Your task to perform on an android device: What's the weather going to be tomorrow? Image 0: 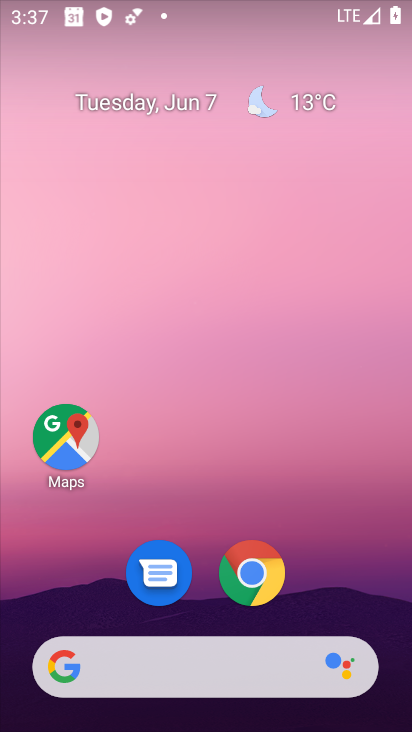
Step 0: click (254, 602)
Your task to perform on an android device: What's the weather going to be tomorrow? Image 1: 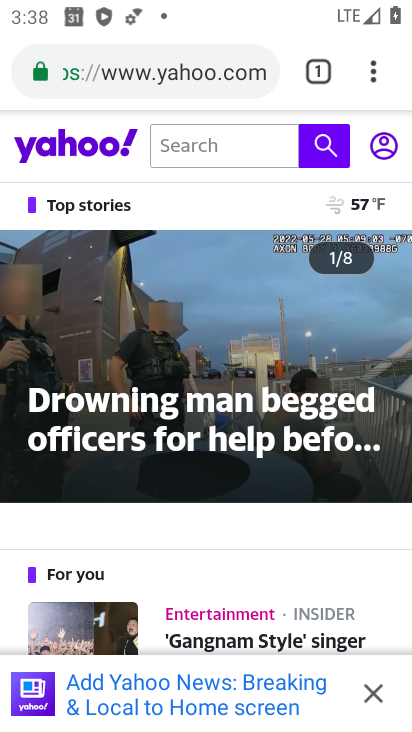
Step 1: click (232, 92)
Your task to perform on an android device: What's the weather going to be tomorrow? Image 2: 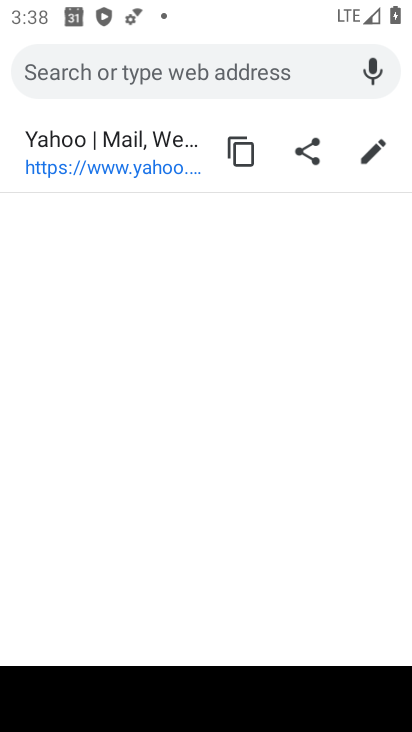
Step 2: type "What's the weather going to be tomorrow?"
Your task to perform on an android device: What's the weather going to be tomorrow? Image 3: 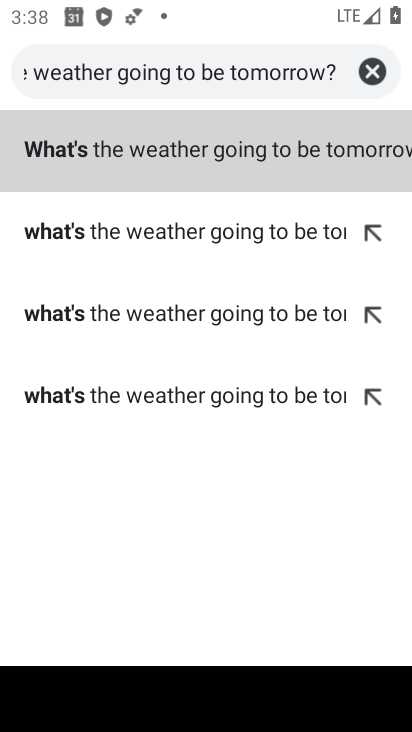
Step 3: press enter
Your task to perform on an android device: What's the weather going to be tomorrow? Image 4: 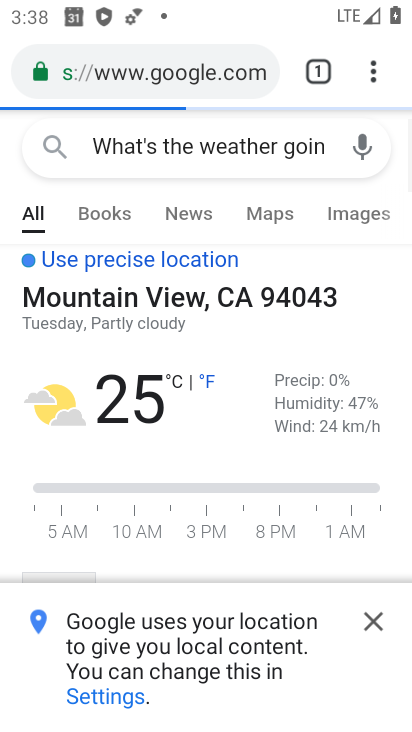
Step 4: click (374, 633)
Your task to perform on an android device: What's the weather going to be tomorrow? Image 5: 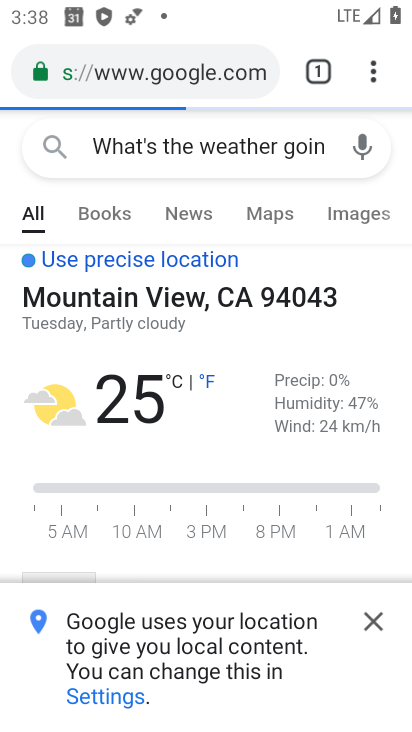
Step 5: click (376, 622)
Your task to perform on an android device: What's the weather going to be tomorrow? Image 6: 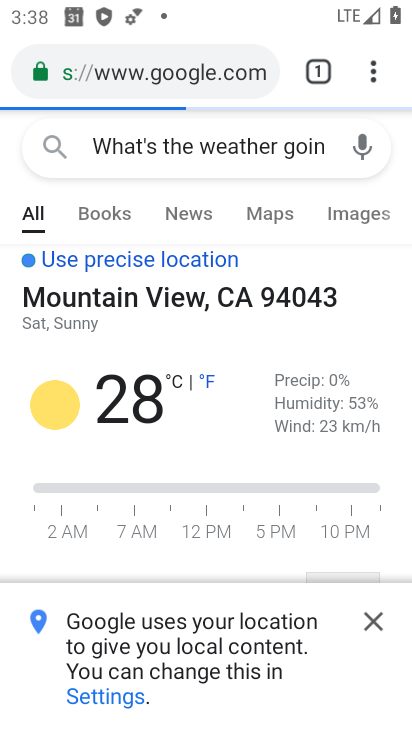
Step 6: task complete